Your task to perform on an android device: Go to Google maps Image 0: 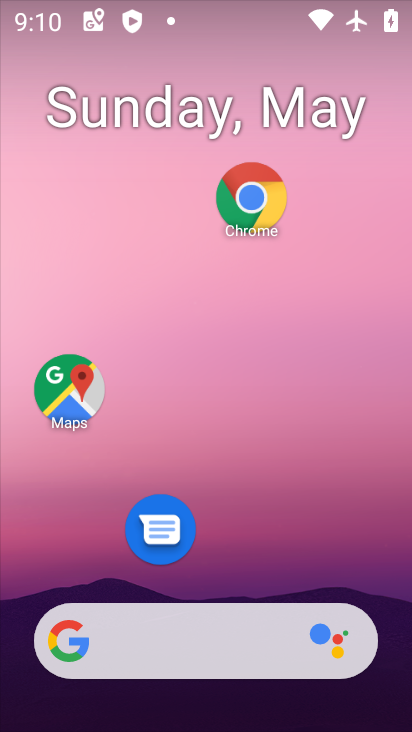
Step 0: drag from (289, 552) to (236, 25)
Your task to perform on an android device: Go to Google maps Image 1: 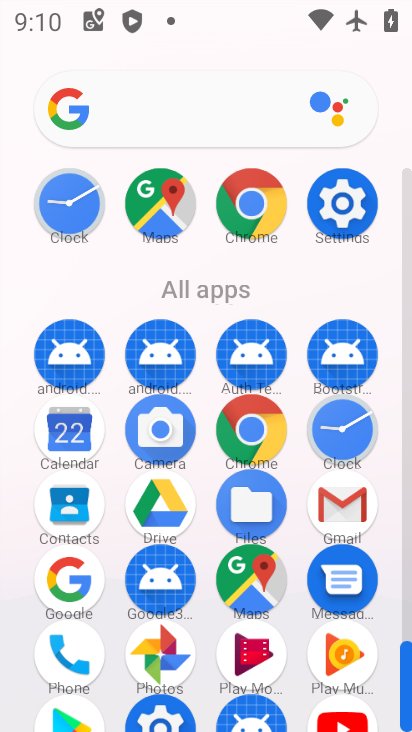
Step 1: click (237, 584)
Your task to perform on an android device: Go to Google maps Image 2: 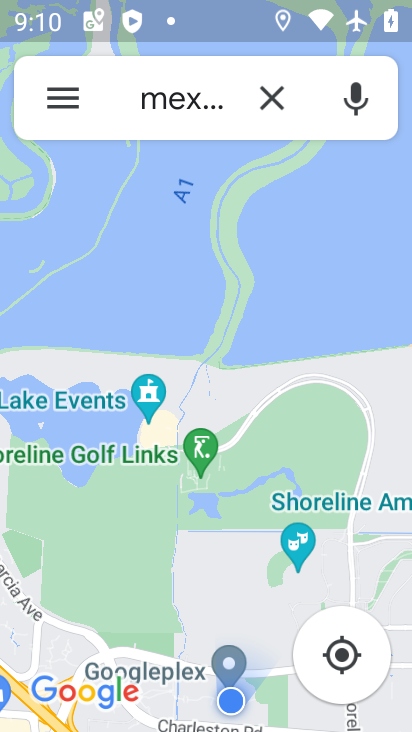
Step 2: task complete